Your task to perform on an android device: Search for Italian restaurants on Maps Image 0: 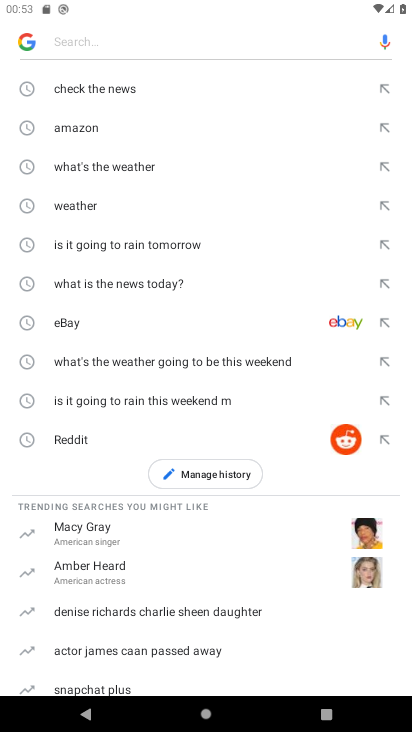
Step 0: press home button
Your task to perform on an android device: Search for Italian restaurants on Maps Image 1: 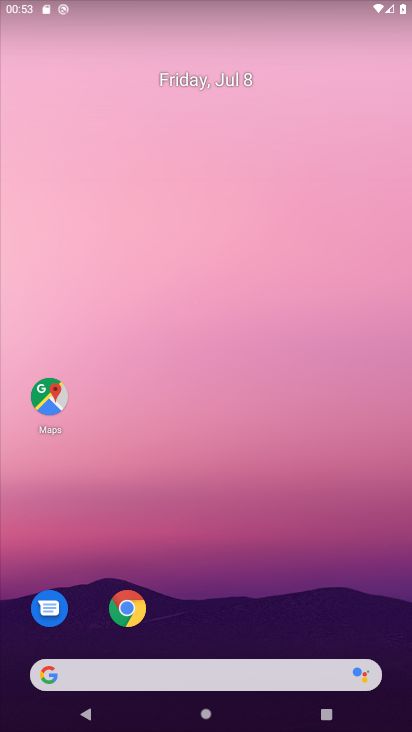
Step 1: drag from (191, 628) to (239, 265)
Your task to perform on an android device: Search for Italian restaurants on Maps Image 2: 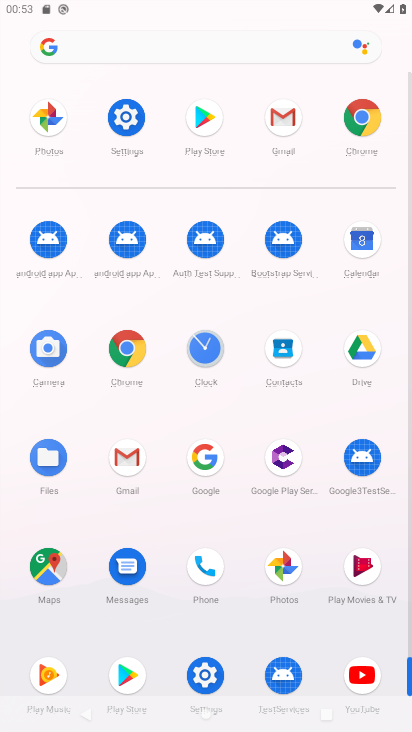
Step 2: click (53, 549)
Your task to perform on an android device: Search for Italian restaurants on Maps Image 3: 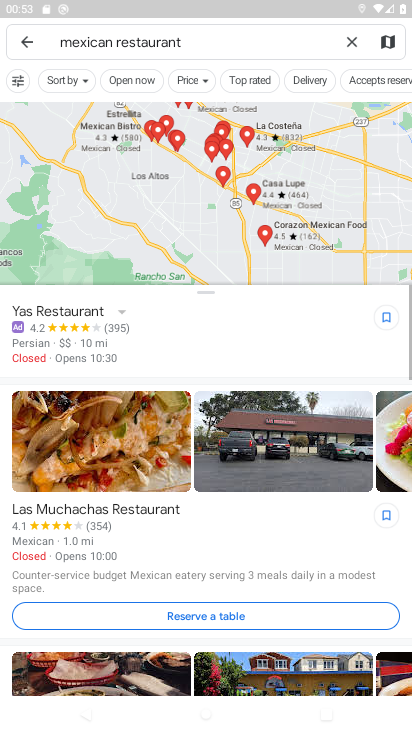
Step 3: click (358, 40)
Your task to perform on an android device: Search for Italian restaurants on Maps Image 4: 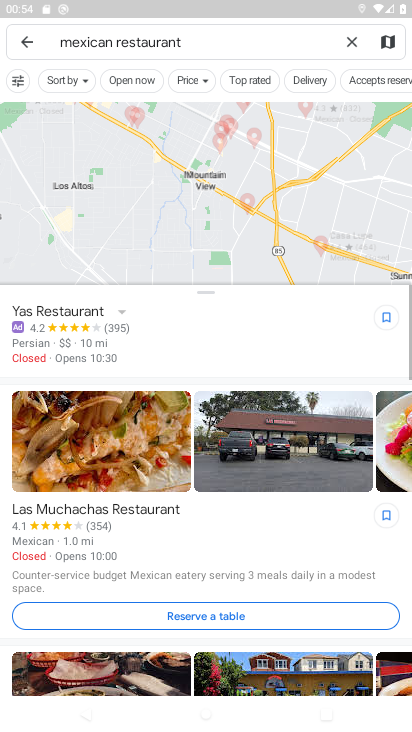
Step 4: click (344, 41)
Your task to perform on an android device: Search for Italian restaurants on Maps Image 5: 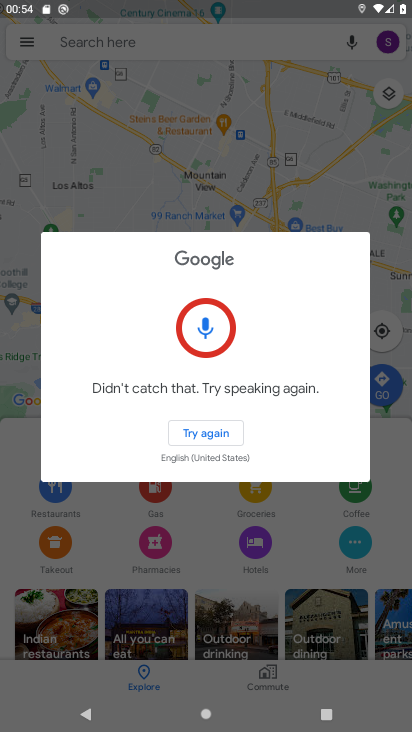
Step 5: click (266, 78)
Your task to perform on an android device: Search for Italian restaurants on Maps Image 6: 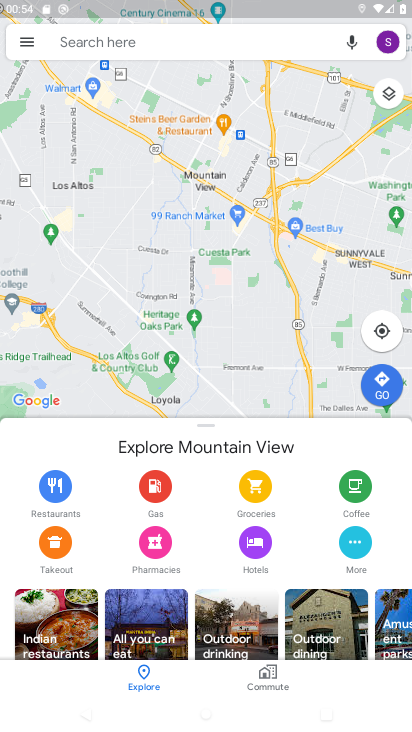
Step 6: click (243, 38)
Your task to perform on an android device: Search for Italian restaurants on Maps Image 7: 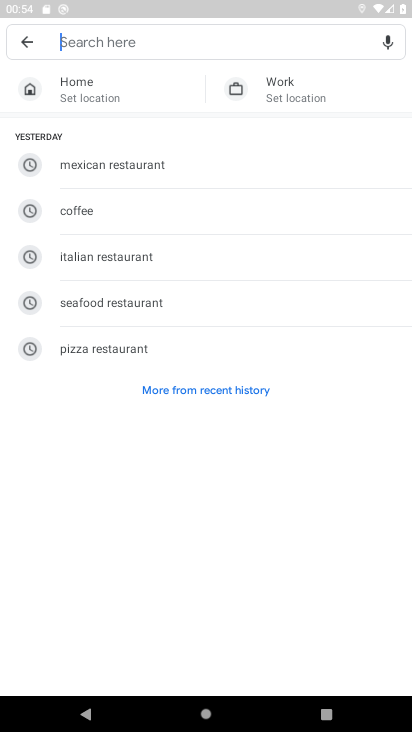
Step 7: click (116, 250)
Your task to perform on an android device: Search for Italian restaurants on Maps Image 8: 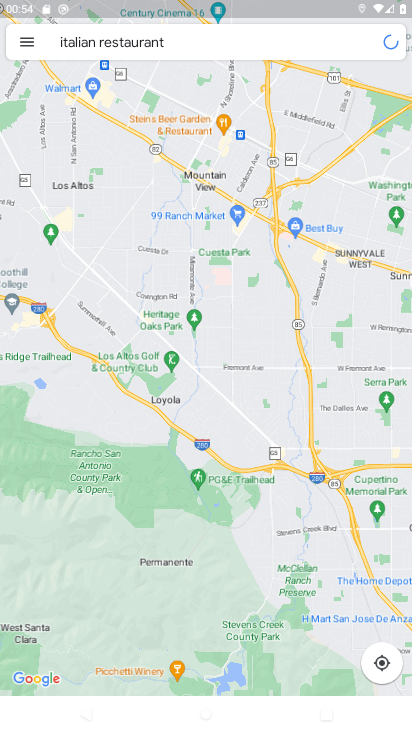
Step 8: task complete